Your task to perform on an android device: add a label to a message in the gmail app Image 0: 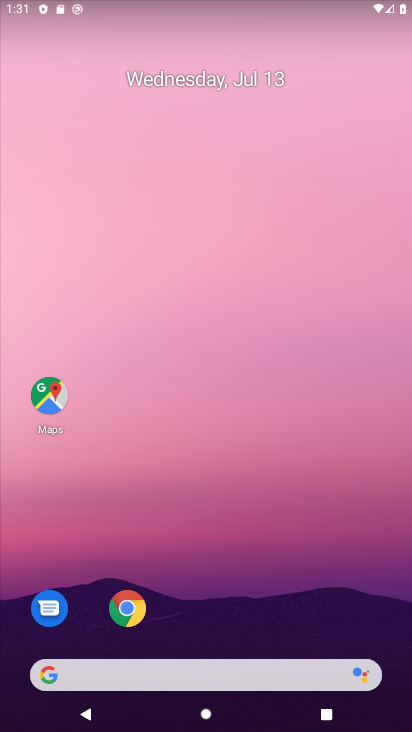
Step 0: drag from (264, 553) to (221, 0)
Your task to perform on an android device: add a label to a message in the gmail app Image 1: 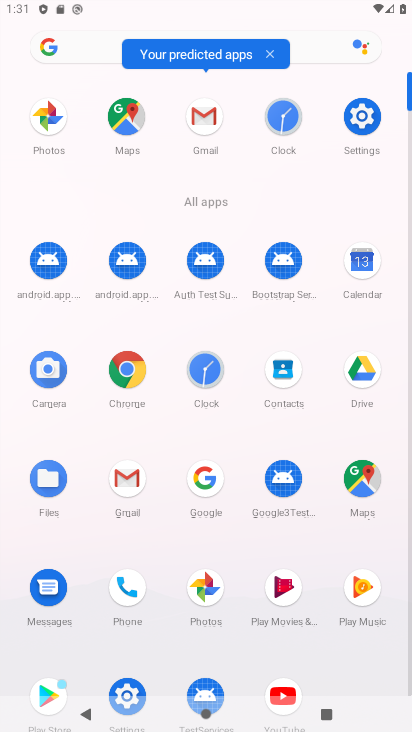
Step 1: click (131, 472)
Your task to perform on an android device: add a label to a message in the gmail app Image 2: 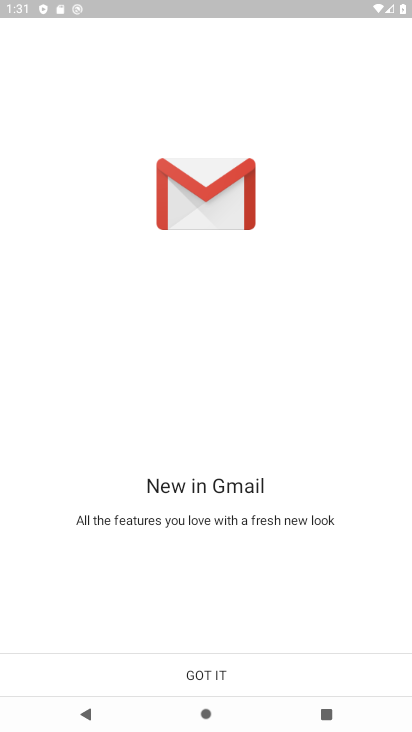
Step 2: click (180, 669)
Your task to perform on an android device: add a label to a message in the gmail app Image 3: 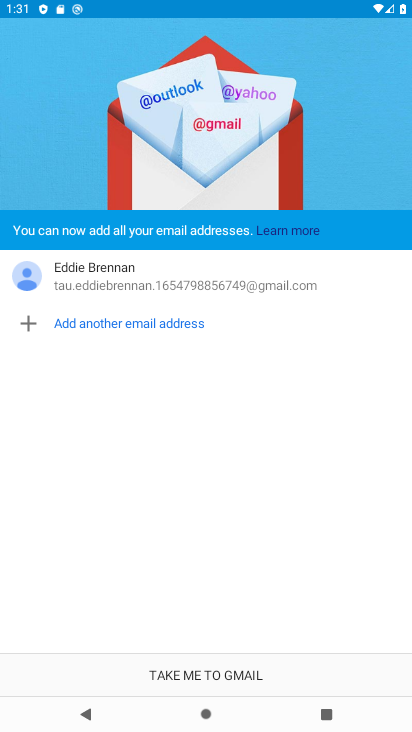
Step 3: click (252, 667)
Your task to perform on an android device: add a label to a message in the gmail app Image 4: 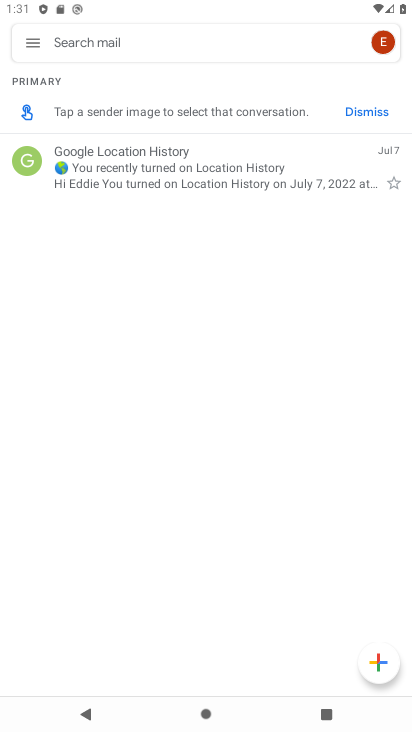
Step 4: click (141, 151)
Your task to perform on an android device: add a label to a message in the gmail app Image 5: 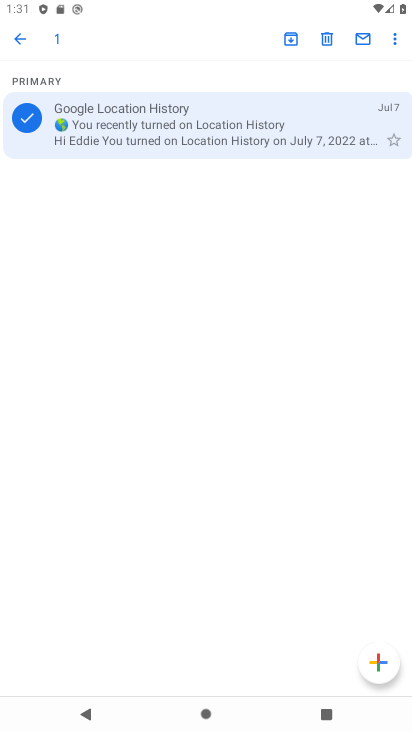
Step 5: click (395, 37)
Your task to perform on an android device: add a label to a message in the gmail app Image 6: 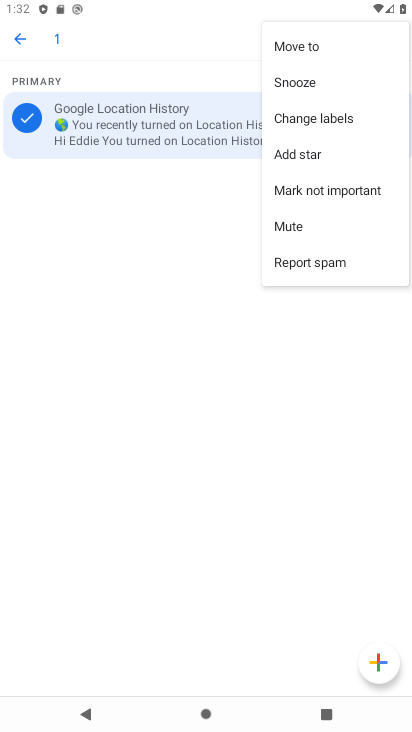
Step 6: click (299, 119)
Your task to perform on an android device: add a label to a message in the gmail app Image 7: 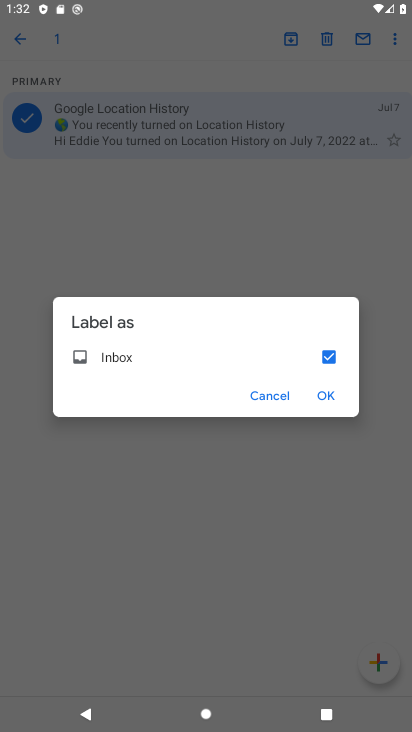
Step 7: click (105, 354)
Your task to perform on an android device: add a label to a message in the gmail app Image 8: 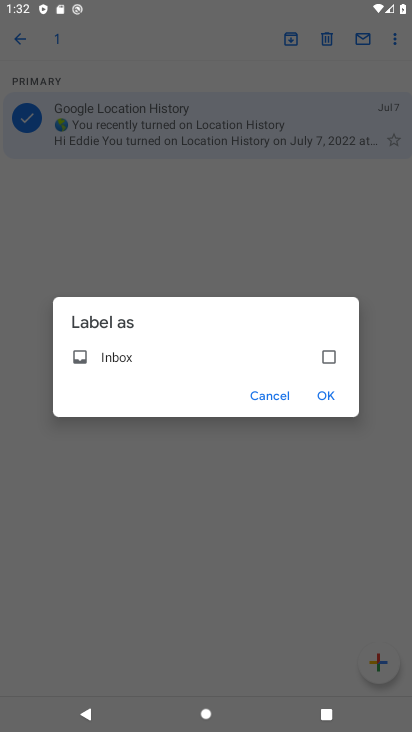
Step 8: click (341, 396)
Your task to perform on an android device: add a label to a message in the gmail app Image 9: 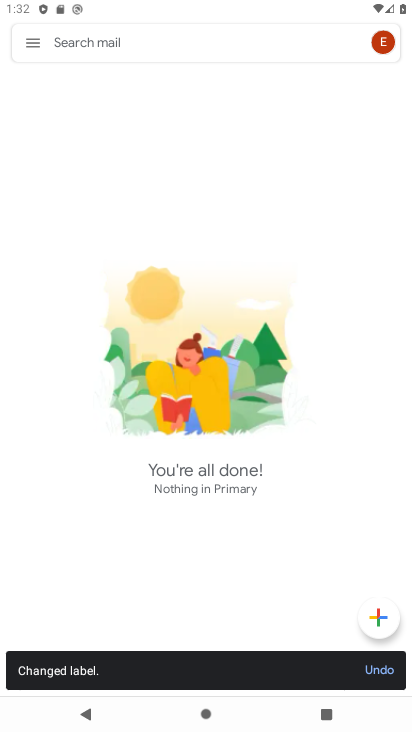
Step 9: task complete